Your task to perform on an android device: star an email in the gmail app Image 0: 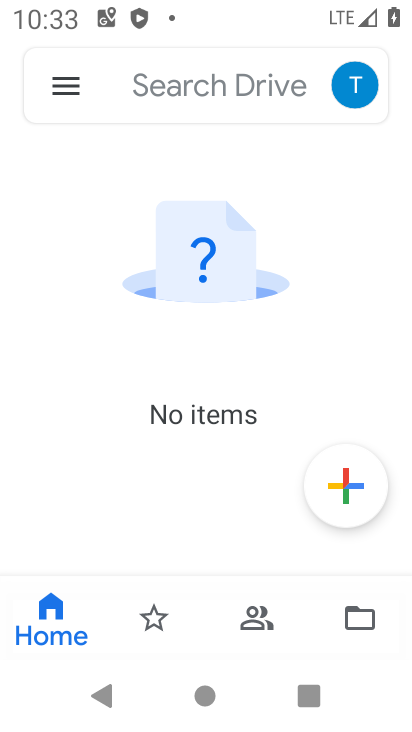
Step 0: press home button
Your task to perform on an android device: star an email in the gmail app Image 1: 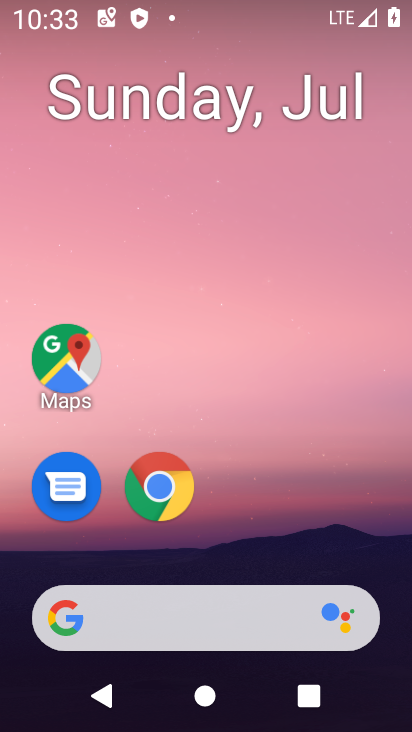
Step 1: drag from (380, 532) to (362, 91)
Your task to perform on an android device: star an email in the gmail app Image 2: 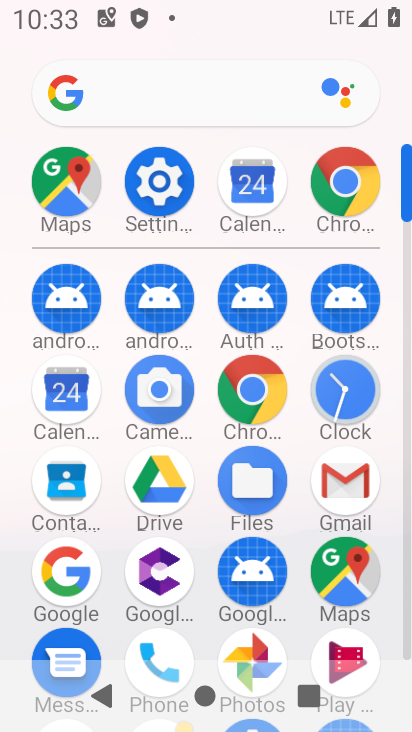
Step 2: click (348, 480)
Your task to perform on an android device: star an email in the gmail app Image 3: 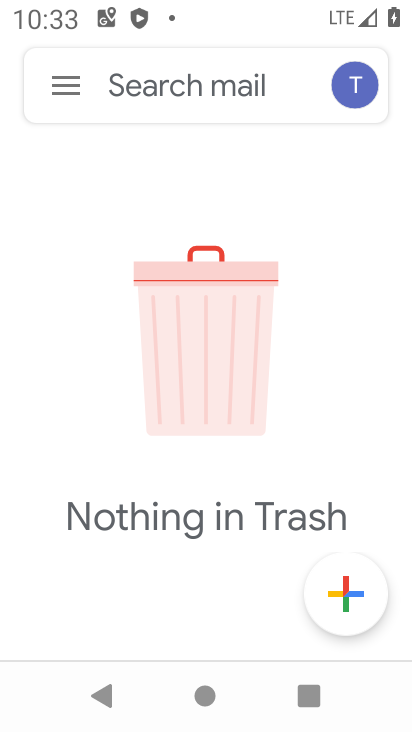
Step 3: click (66, 75)
Your task to perform on an android device: star an email in the gmail app Image 4: 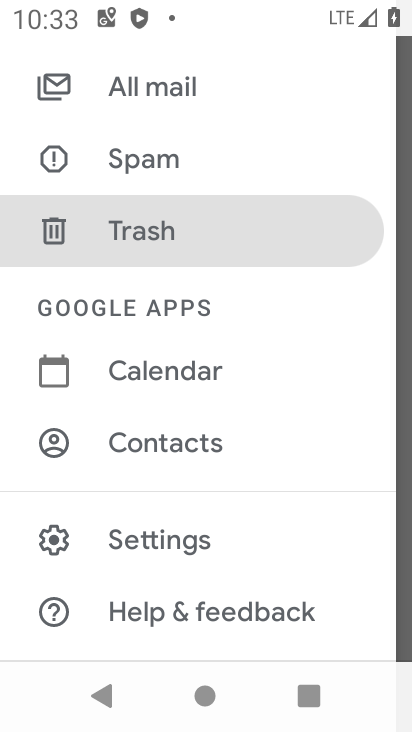
Step 4: click (211, 87)
Your task to perform on an android device: star an email in the gmail app Image 5: 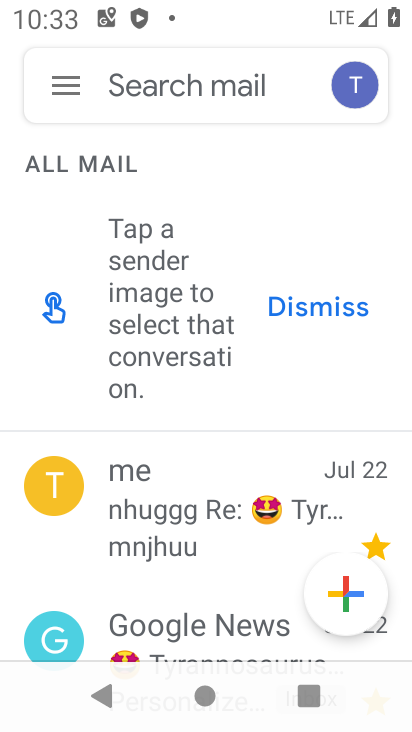
Step 5: drag from (226, 512) to (242, 194)
Your task to perform on an android device: star an email in the gmail app Image 6: 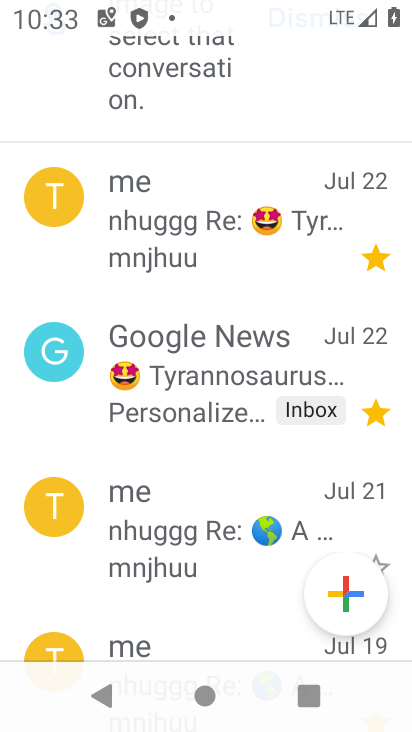
Step 6: drag from (228, 584) to (215, 441)
Your task to perform on an android device: star an email in the gmail app Image 7: 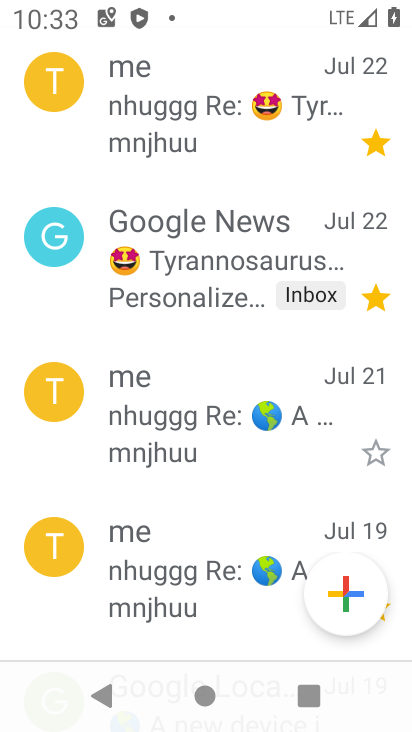
Step 7: click (376, 449)
Your task to perform on an android device: star an email in the gmail app Image 8: 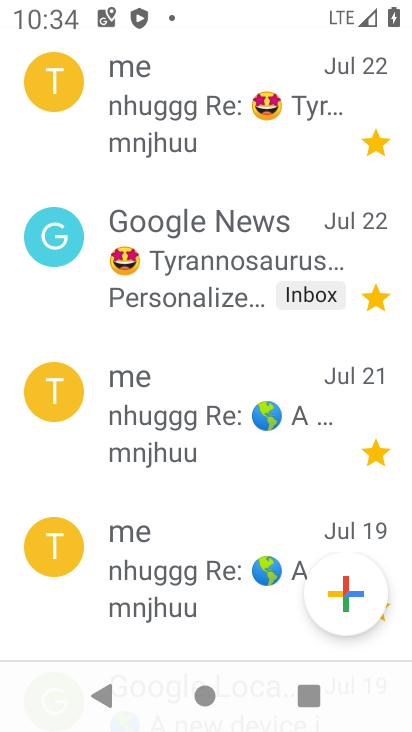
Step 8: task complete